Your task to perform on an android device: turn off smart reply in the gmail app Image 0: 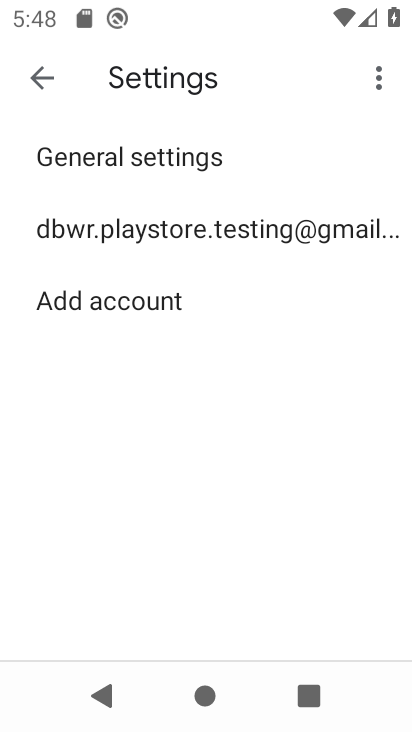
Step 0: click (176, 241)
Your task to perform on an android device: turn off smart reply in the gmail app Image 1: 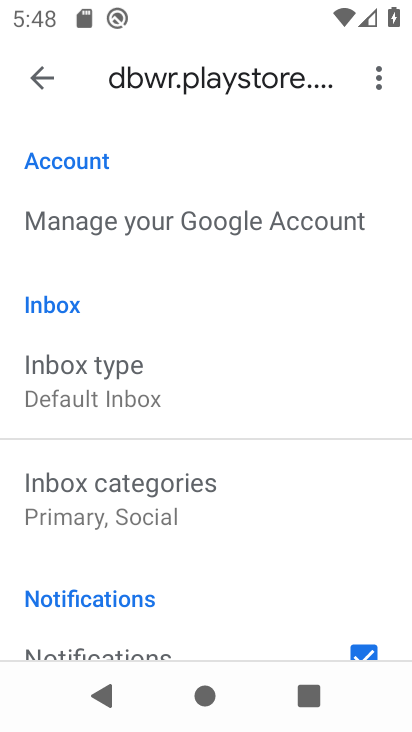
Step 1: drag from (204, 596) to (263, 38)
Your task to perform on an android device: turn off smart reply in the gmail app Image 2: 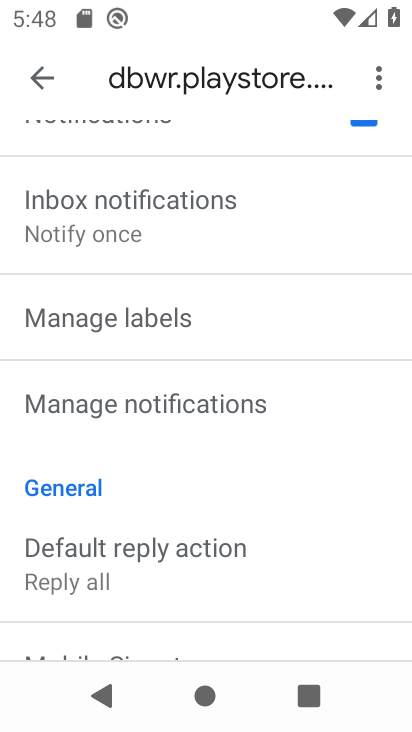
Step 2: drag from (186, 598) to (261, 60)
Your task to perform on an android device: turn off smart reply in the gmail app Image 3: 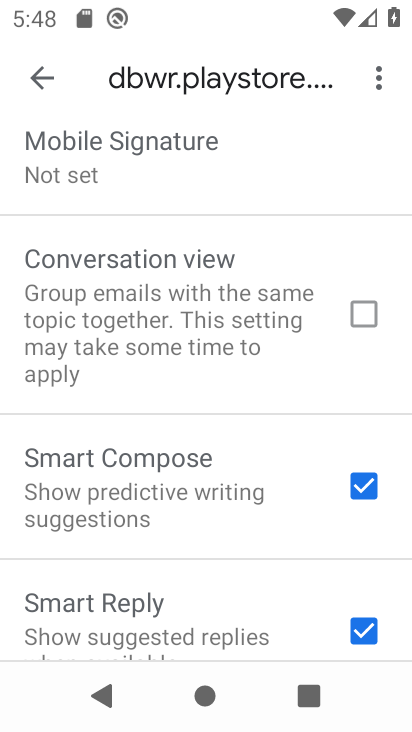
Step 3: click (361, 633)
Your task to perform on an android device: turn off smart reply in the gmail app Image 4: 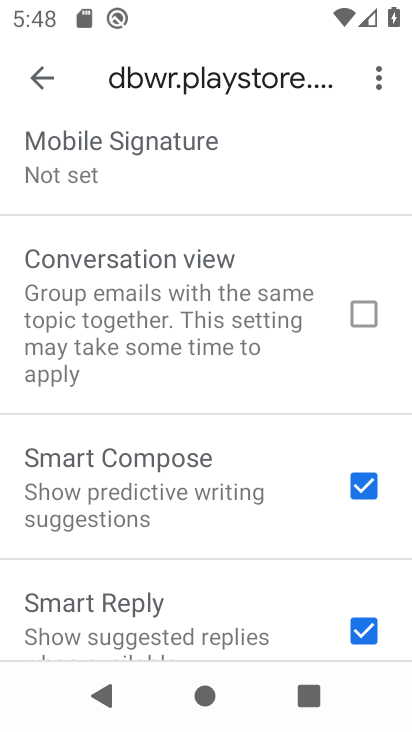
Step 4: task complete